Your task to perform on an android device: set an alarm Image 0: 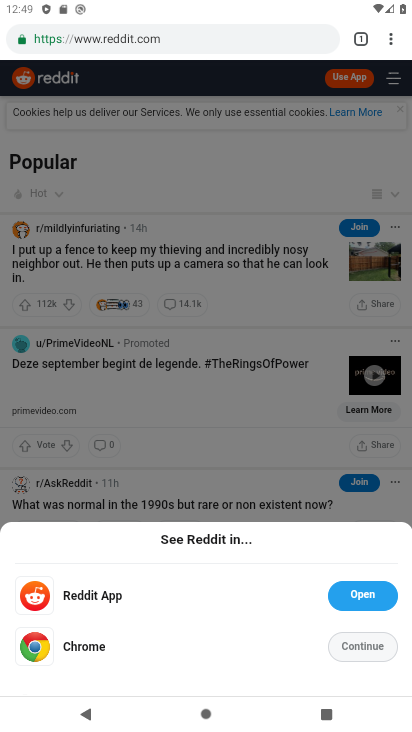
Step 0: press home button
Your task to perform on an android device: set an alarm Image 1: 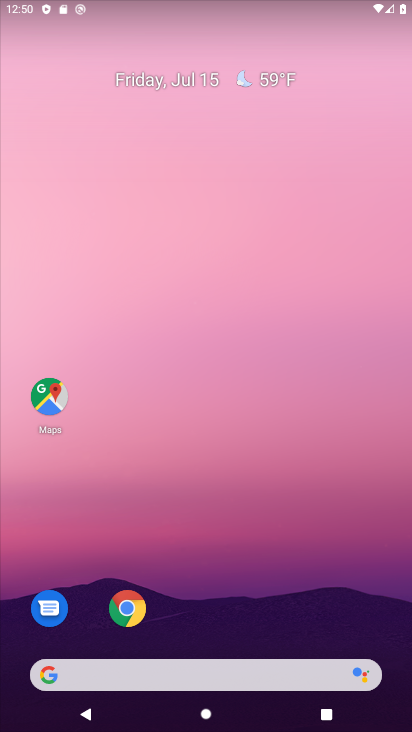
Step 1: drag from (228, 662) to (219, 147)
Your task to perform on an android device: set an alarm Image 2: 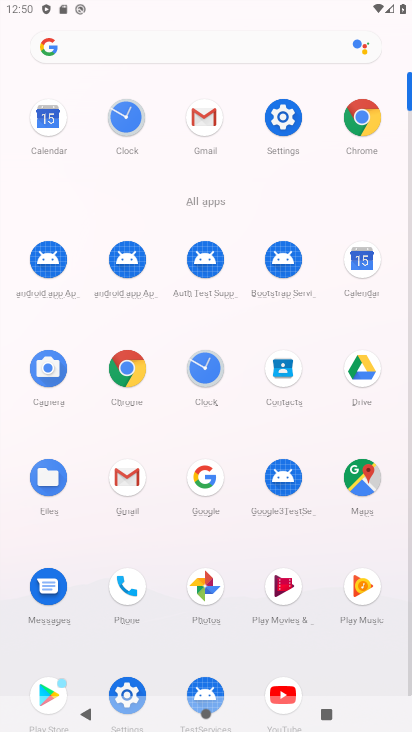
Step 2: click (208, 382)
Your task to perform on an android device: set an alarm Image 3: 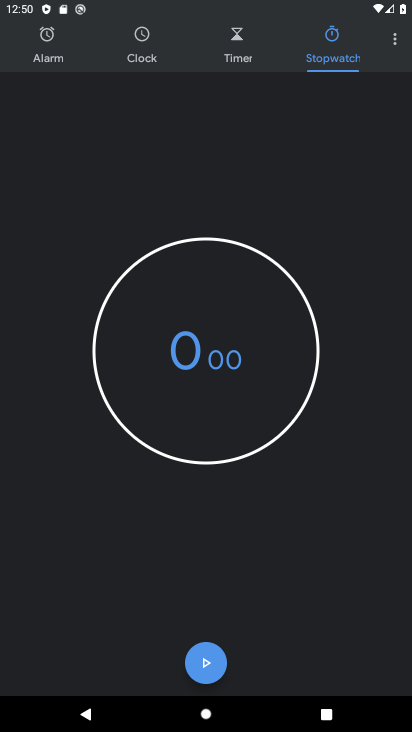
Step 3: click (39, 48)
Your task to perform on an android device: set an alarm Image 4: 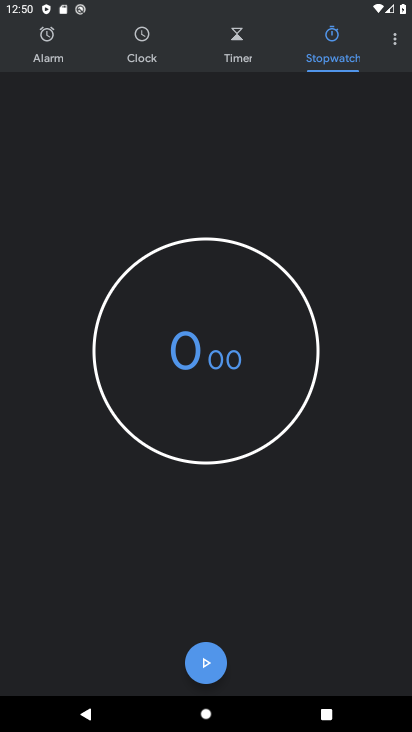
Step 4: click (50, 47)
Your task to perform on an android device: set an alarm Image 5: 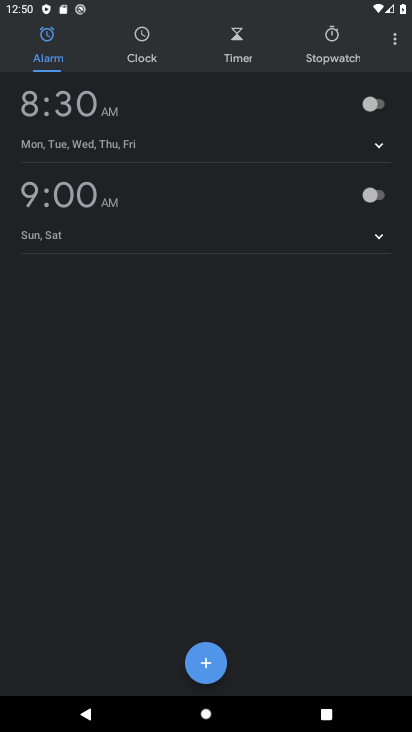
Step 5: click (57, 48)
Your task to perform on an android device: set an alarm Image 6: 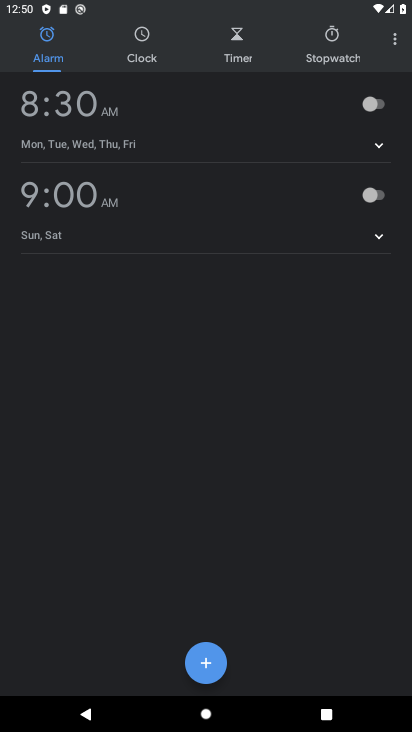
Step 6: click (203, 666)
Your task to perform on an android device: set an alarm Image 7: 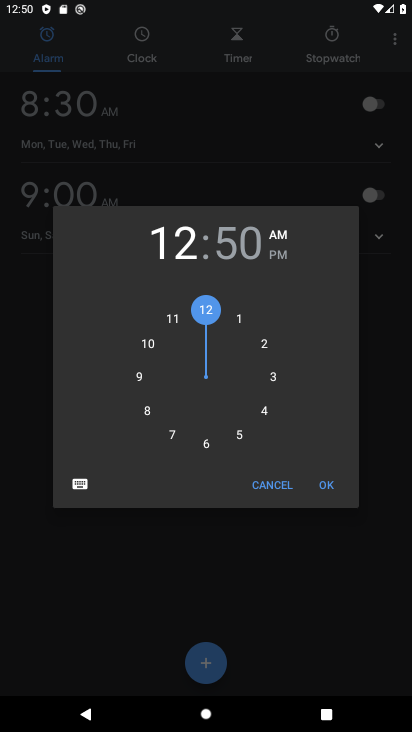
Step 7: click (215, 441)
Your task to perform on an android device: set an alarm Image 8: 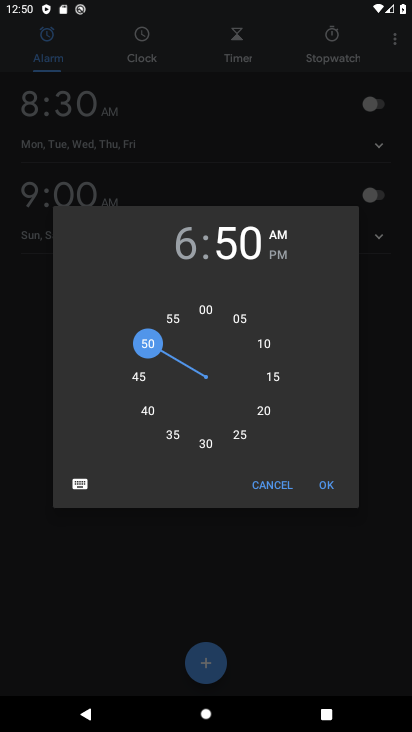
Step 8: click (332, 488)
Your task to perform on an android device: set an alarm Image 9: 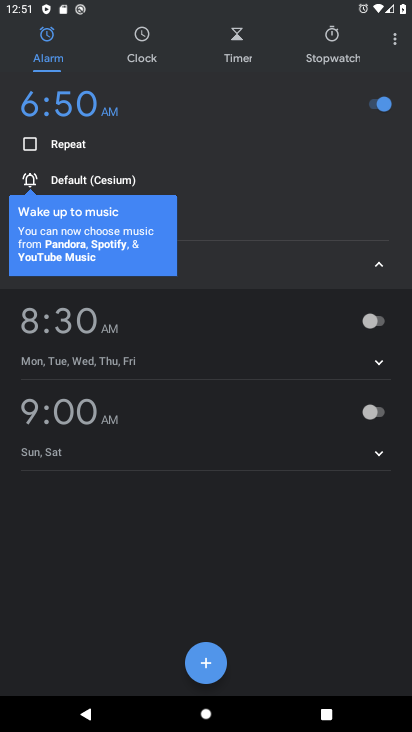
Step 9: task complete